Your task to perform on an android device: open a new tab in the chrome app Image 0: 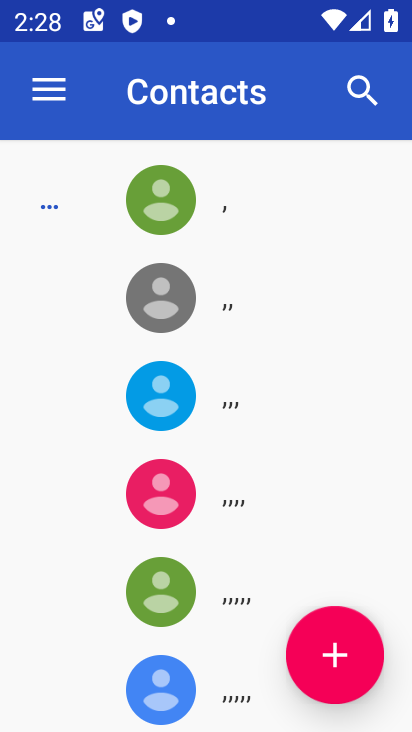
Step 0: press home button
Your task to perform on an android device: open a new tab in the chrome app Image 1: 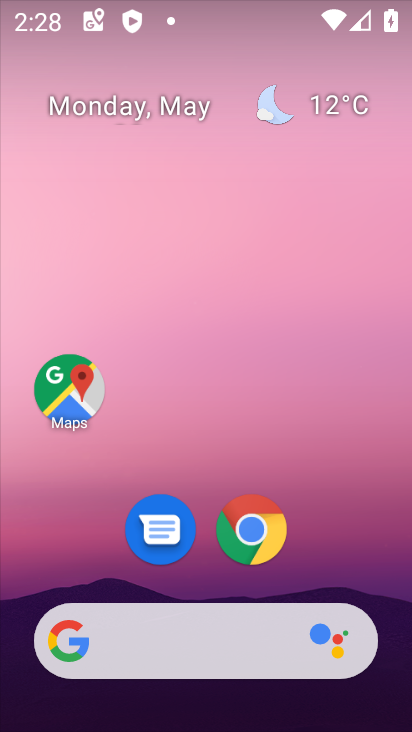
Step 1: click (250, 534)
Your task to perform on an android device: open a new tab in the chrome app Image 2: 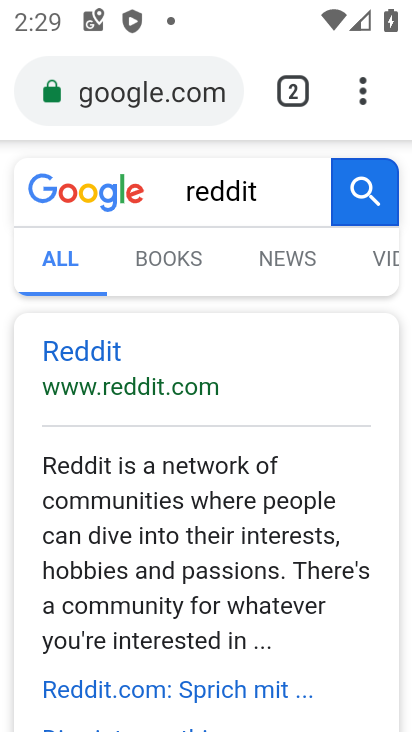
Step 2: click (362, 99)
Your task to perform on an android device: open a new tab in the chrome app Image 3: 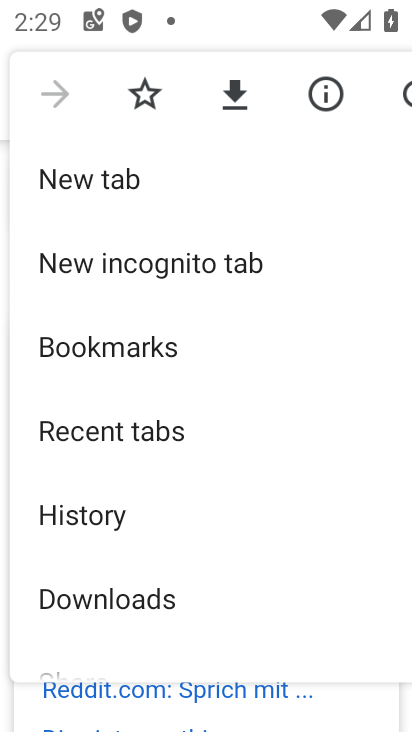
Step 3: click (77, 172)
Your task to perform on an android device: open a new tab in the chrome app Image 4: 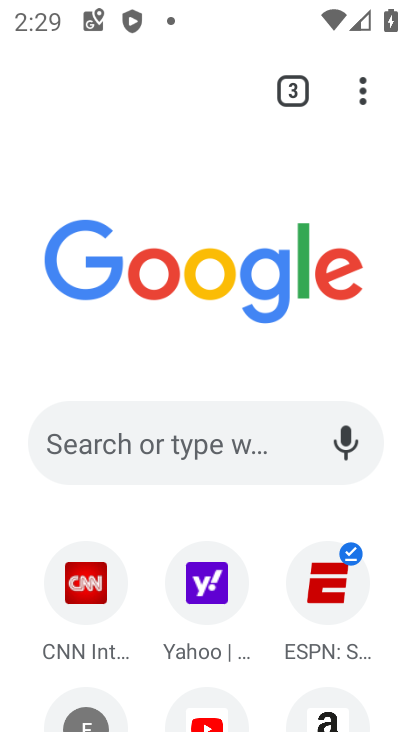
Step 4: task complete